Your task to perform on an android device: turn on priority inbox in the gmail app Image 0: 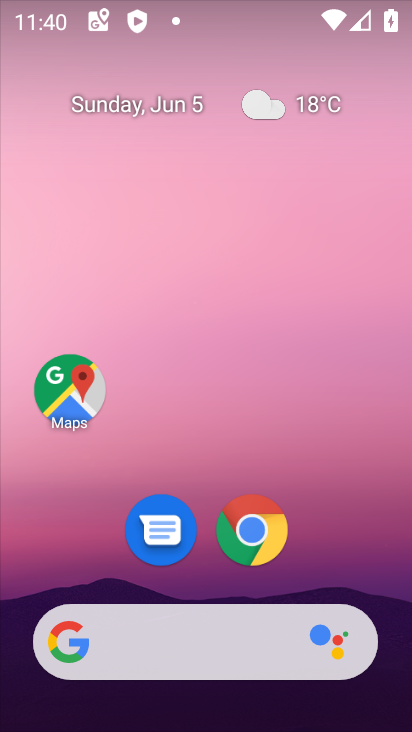
Step 0: drag from (346, 522) to (378, 46)
Your task to perform on an android device: turn on priority inbox in the gmail app Image 1: 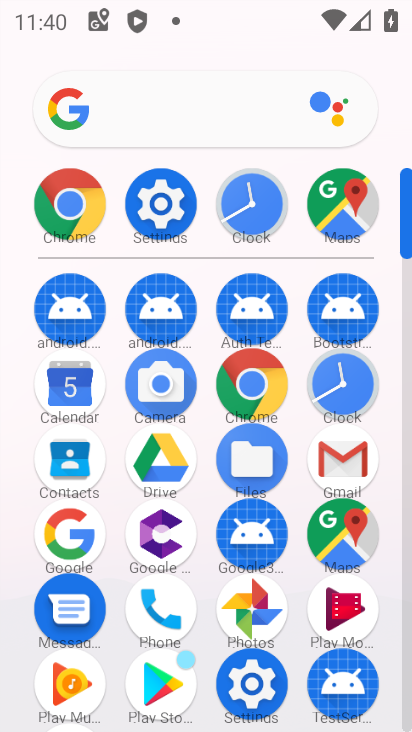
Step 1: click (364, 463)
Your task to perform on an android device: turn on priority inbox in the gmail app Image 2: 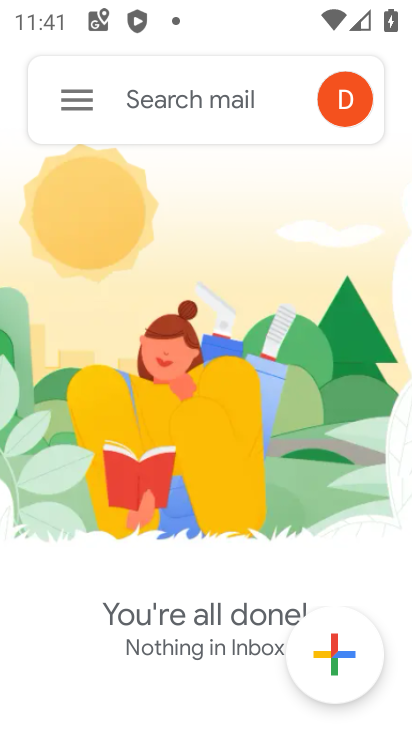
Step 2: click (82, 106)
Your task to perform on an android device: turn on priority inbox in the gmail app Image 3: 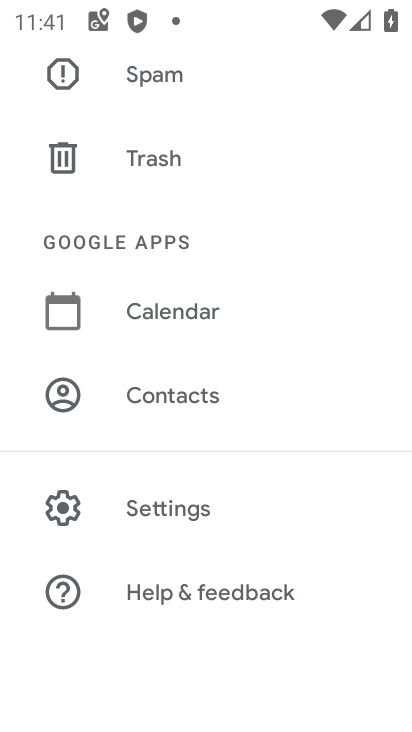
Step 3: click (163, 523)
Your task to perform on an android device: turn on priority inbox in the gmail app Image 4: 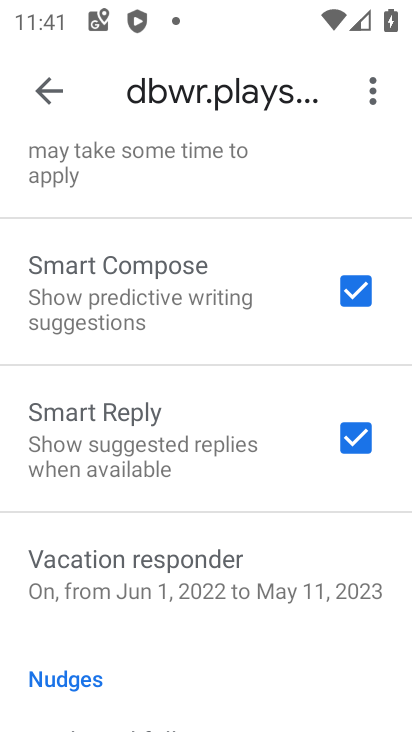
Step 4: drag from (136, 620) to (146, 186)
Your task to perform on an android device: turn on priority inbox in the gmail app Image 5: 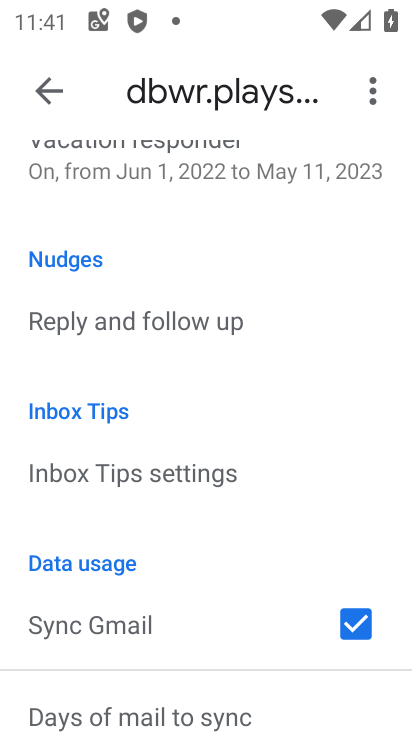
Step 5: drag from (180, 652) to (232, 223)
Your task to perform on an android device: turn on priority inbox in the gmail app Image 6: 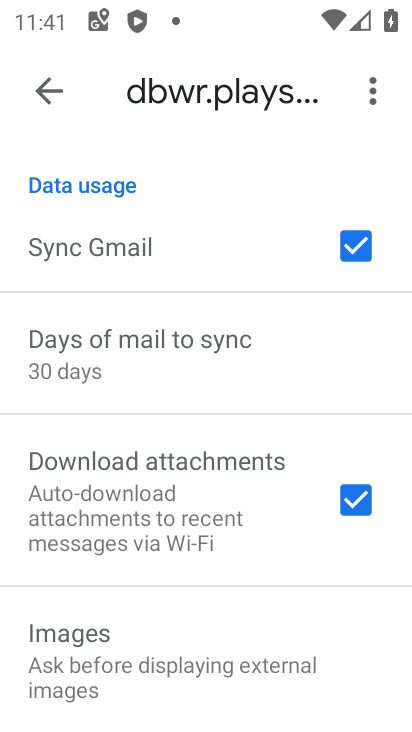
Step 6: drag from (236, 252) to (249, 574)
Your task to perform on an android device: turn on priority inbox in the gmail app Image 7: 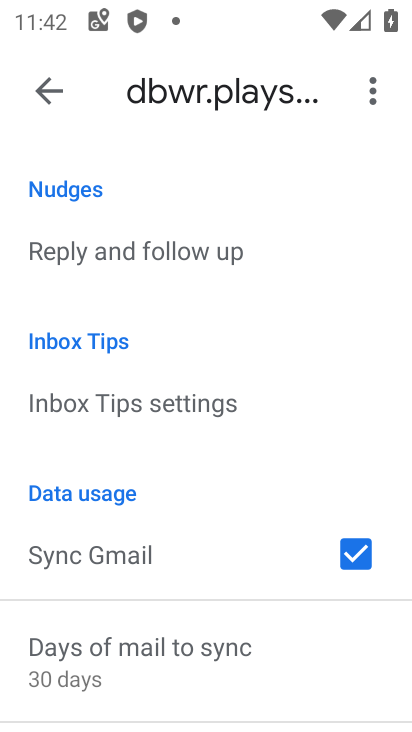
Step 7: click (49, 98)
Your task to perform on an android device: turn on priority inbox in the gmail app Image 8: 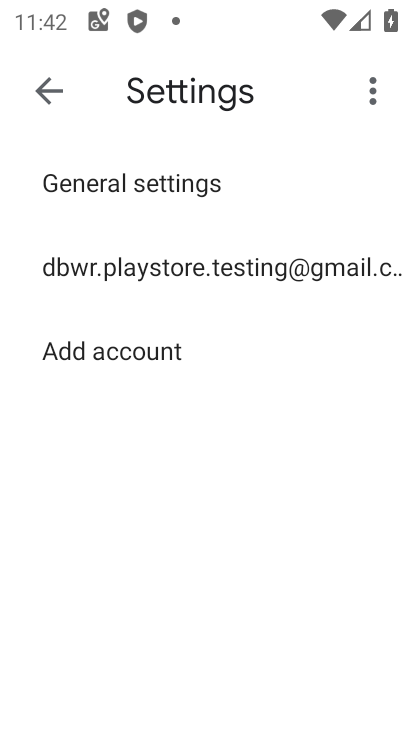
Step 8: click (49, 98)
Your task to perform on an android device: turn on priority inbox in the gmail app Image 9: 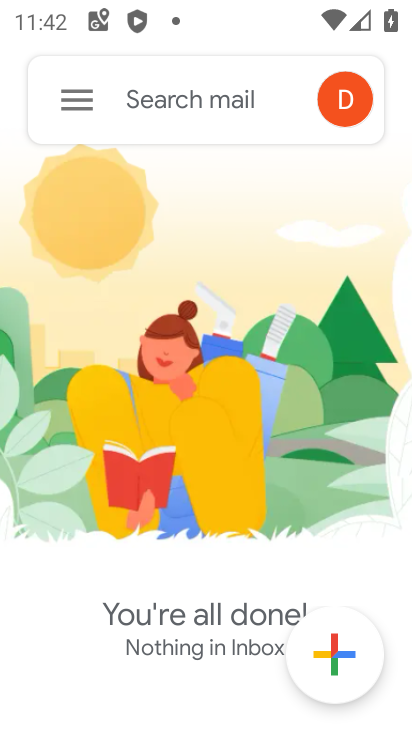
Step 9: click (49, 98)
Your task to perform on an android device: turn on priority inbox in the gmail app Image 10: 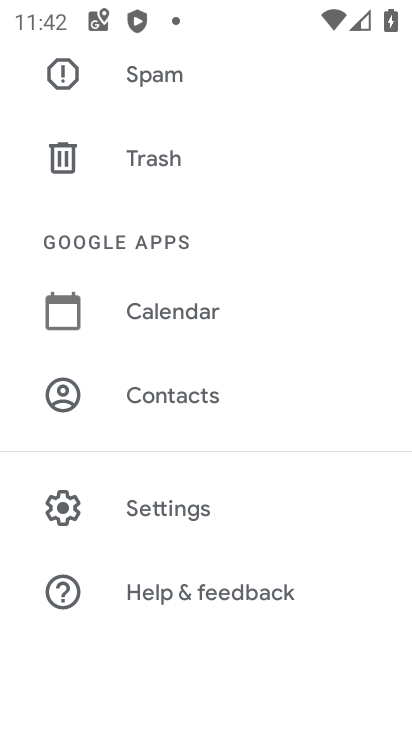
Step 10: click (155, 520)
Your task to perform on an android device: turn on priority inbox in the gmail app Image 11: 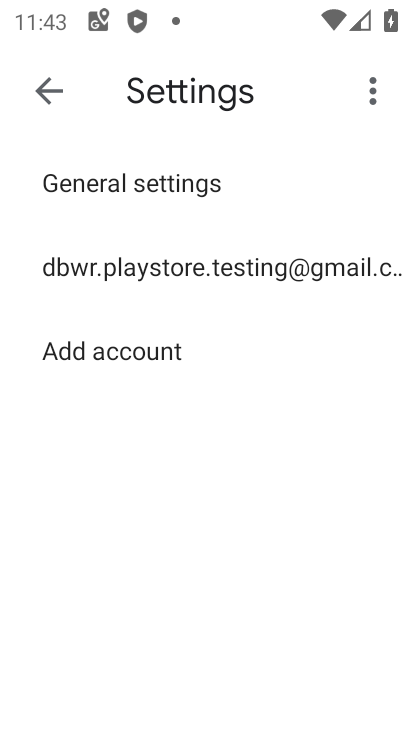
Step 11: click (157, 277)
Your task to perform on an android device: turn on priority inbox in the gmail app Image 12: 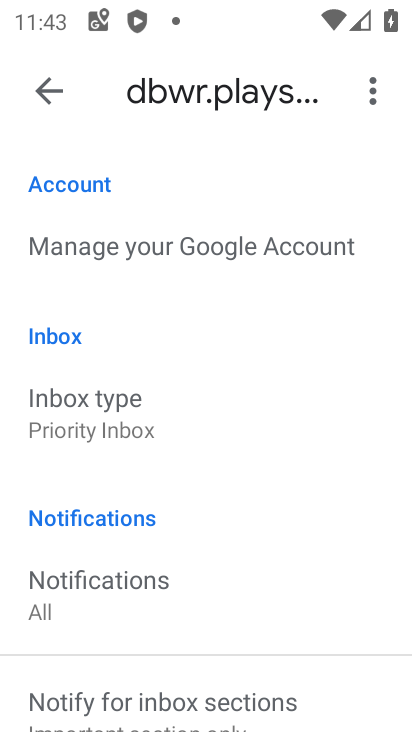
Step 12: click (88, 438)
Your task to perform on an android device: turn on priority inbox in the gmail app Image 13: 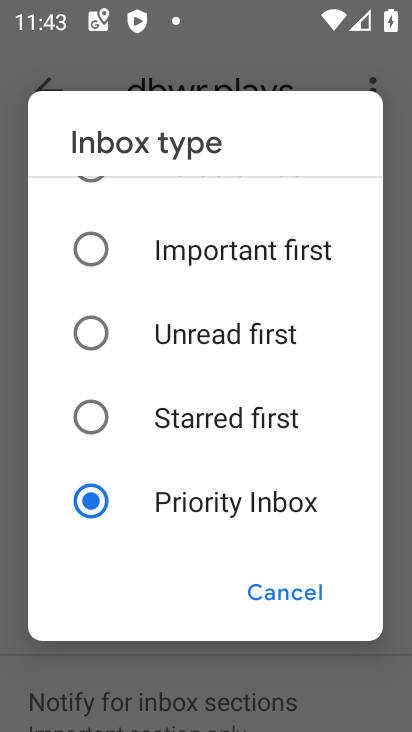
Step 13: task complete